Your task to perform on an android device: open app "DoorDash - Food Delivery" (install if not already installed) Image 0: 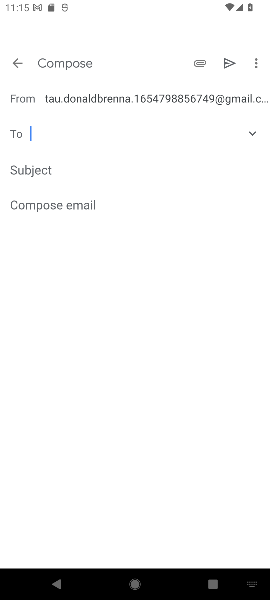
Step 0: press home button
Your task to perform on an android device: open app "DoorDash - Food Delivery" (install if not already installed) Image 1: 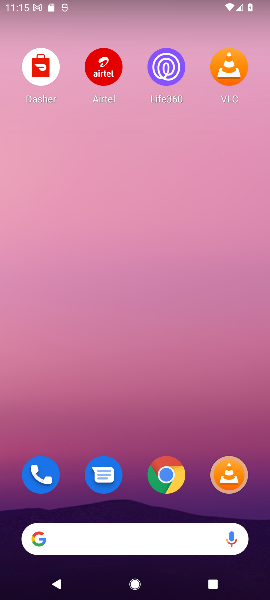
Step 1: drag from (132, 499) to (129, 19)
Your task to perform on an android device: open app "DoorDash - Food Delivery" (install if not already installed) Image 2: 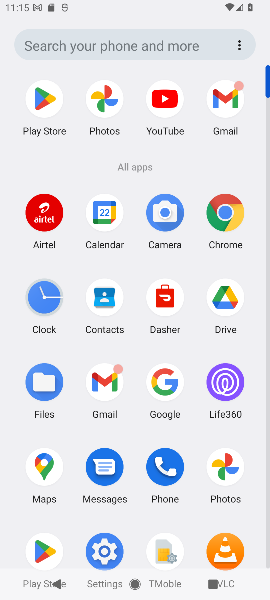
Step 2: click (44, 99)
Your task to perform on an android device: open app "DoorDash - Food Delivery" (install if not already installed) Image 3: 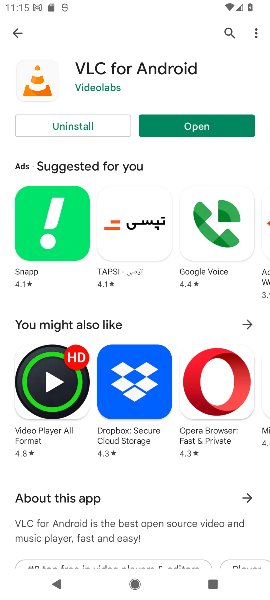
Step 3: click (16, 32)
Your task to perform on an android device: open app "DoorDash - Food Delivery" (install if not already installed) Image 4: 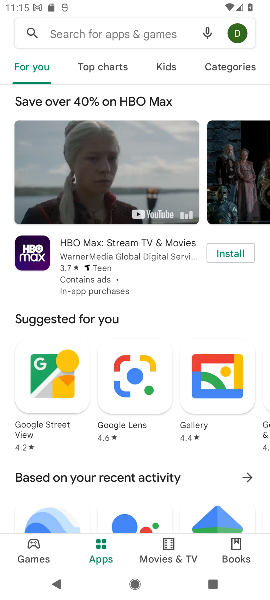
Step 4: click (103, 32)
Your task to perform on an android device: open app "DoorDash - Food Delivery" (install if not already installed) Image 5: 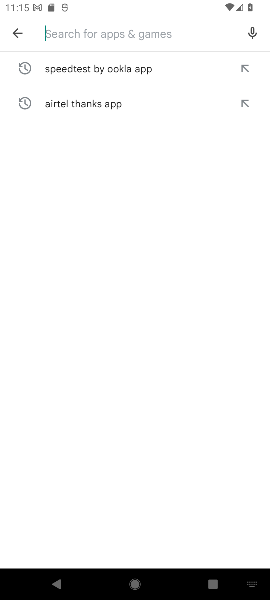
Step 5: type "DoorDash - Food Delivery"
Your task to perform on an android device: open app "DoorDash - Food Delivery" (install if not already installed) Image 6: 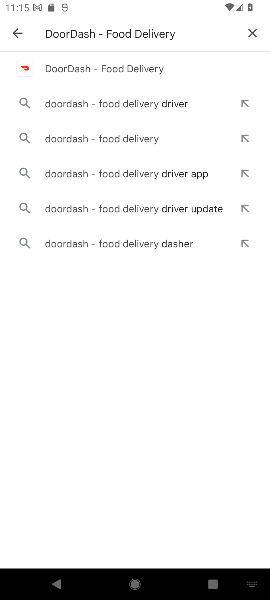
Step 6: click (52, 59)
Your task to perform on an android device: open app "DoorDash - Food Delivery" (install if not already installed) Image 7: 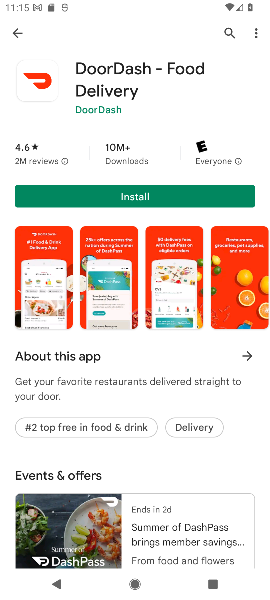
Step 7: click (140, 200)
Your task to perform on an android device: open app "DoorDash - Food Delivery" (install if not already installed) Image 8: 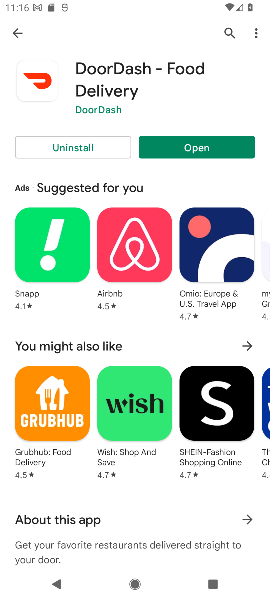
Step 8: click (196, 151)
Your task to perform on an android device: open app "DoorDash - Food Delivery" (install if not already installed) Image 9: 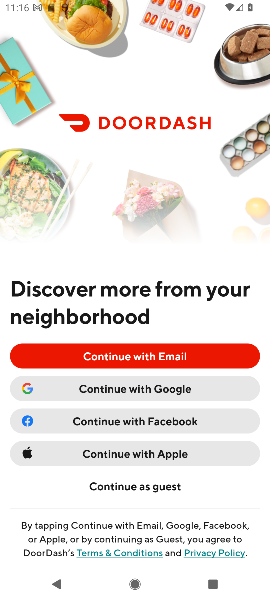
Step 9: task complete